Your task to perform on an android device: Go to display settings Image 0: 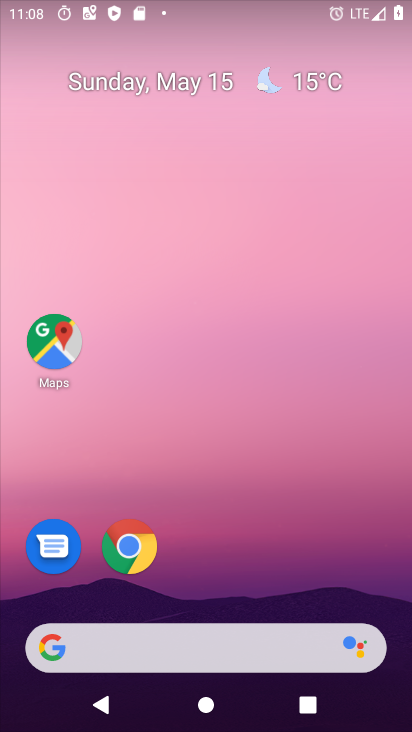
Step 0: drag from (246, 630) to (268, 335)
Your task to perform on an android device: Go to display settings Image 1: 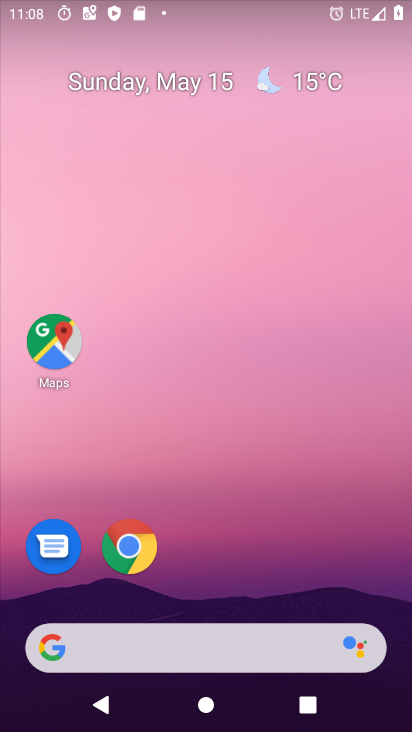
Step 1: drag from (185, 530) to (178, 179)
Your task to perform on an android device: Go to display settings Image 2: 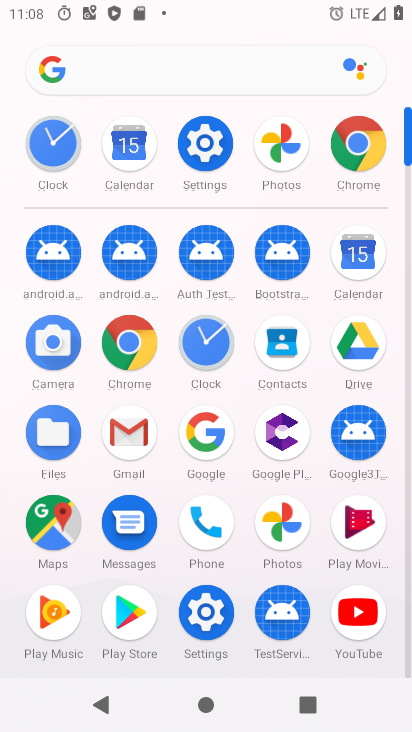
Step 2: click (213, 139)
Your task to perform on an android device: Go to display settings Image 3: 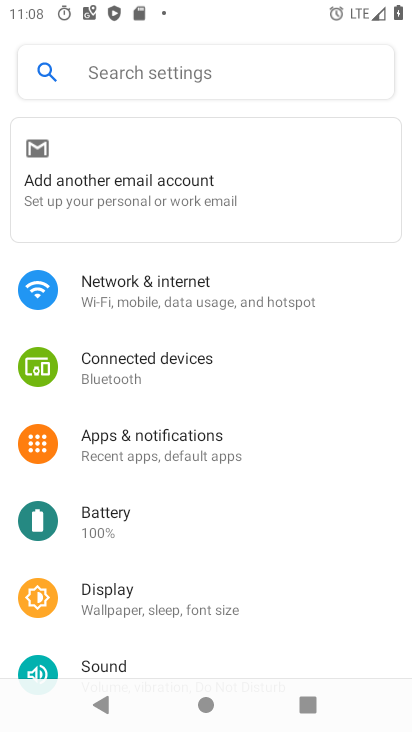
Step 3: drag from (194, 525) to (215, 196)
Your task to perform on an android device: Go to display settings Image 4: 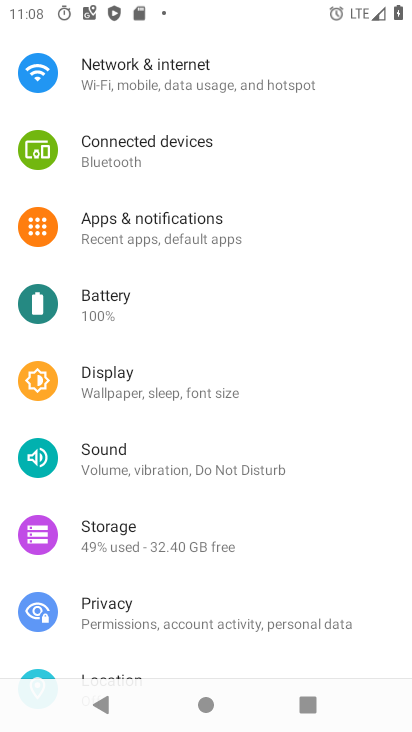
Step 4: click (115, 371)
Your task to perform on an android device: Go to display settings Image 5: 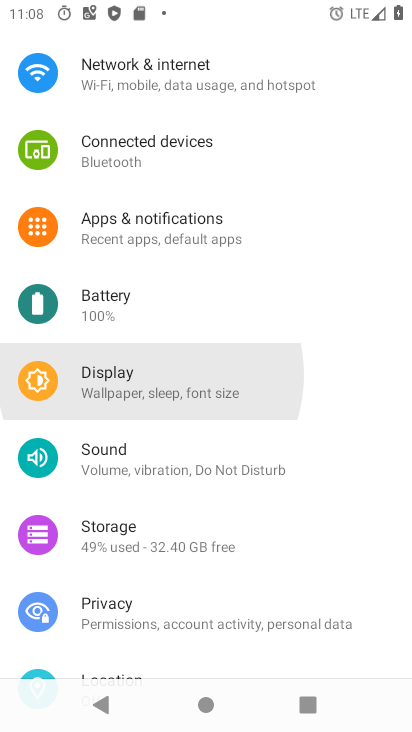
Step 5: click (115, 371)
Your task to perform on an android device: Go to display settings Image 6: 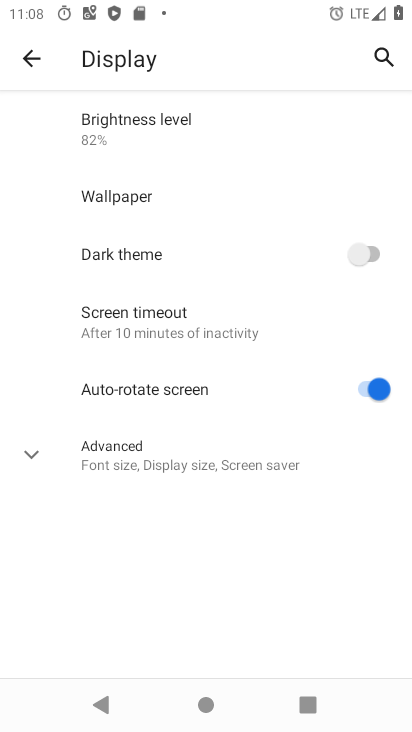
Step 6: click (163, 324)
Your task to perform on an android device: Go to display settings Image 7: 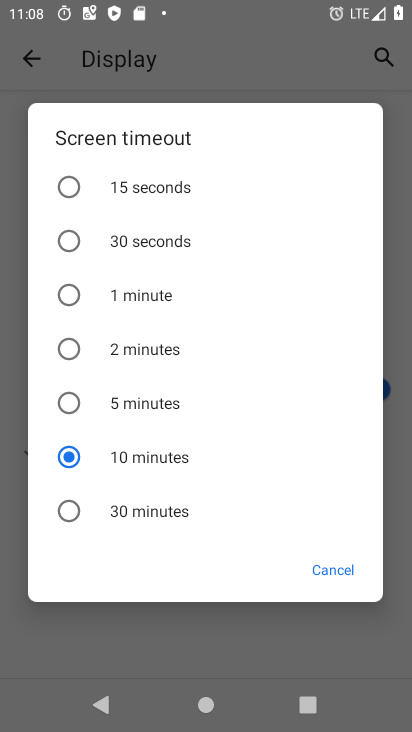
Step 7: click (25, 51)
Your task to perform on an android device: Go to display settings Image 8: 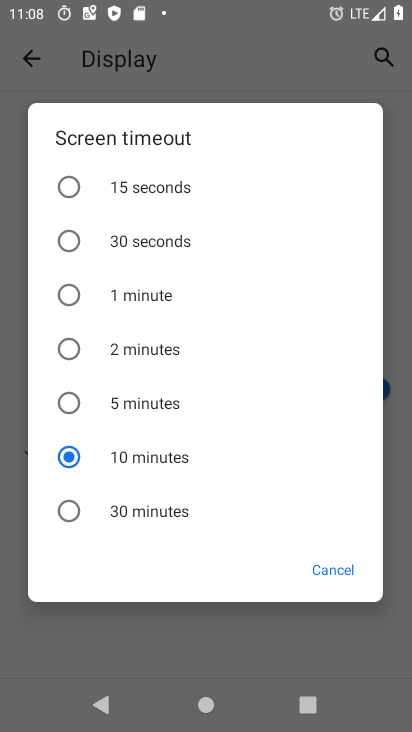
Step 8: click (26, 51)
Your task to perform on an android device: Go to display settings Image 9: 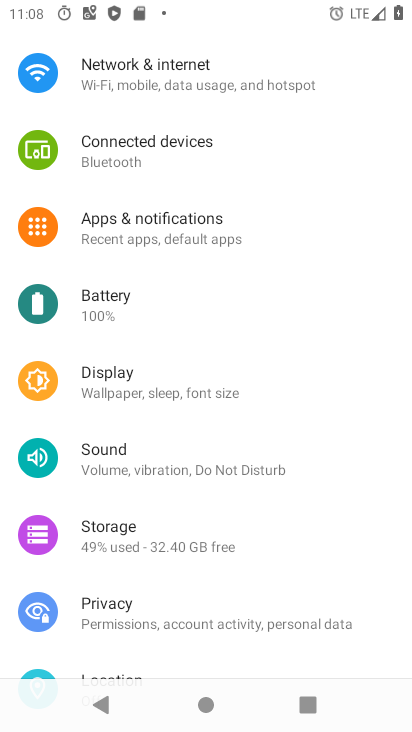
Step 9: task complete